Your task to perform on an android device: Open Google Maps Image 0: 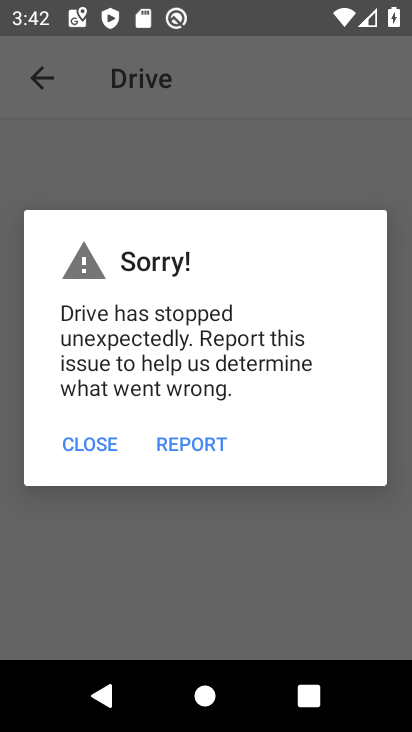
Step 0: press back button
Your task to perform on an android device: Open Google Maps Image 1: 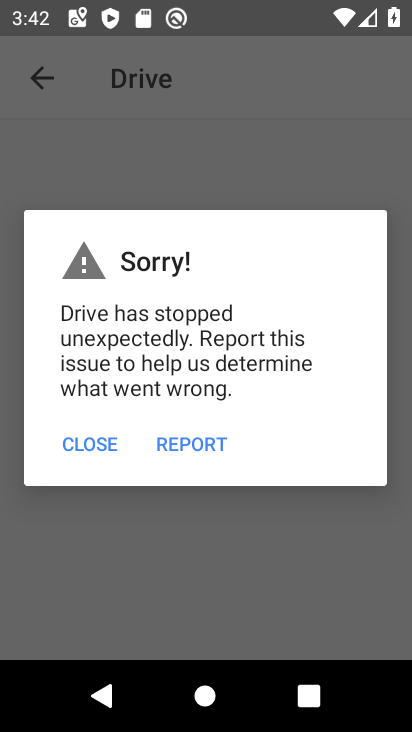
Step 1: press home button
Your task to perform on an android device: Open Google Maps Image 2: 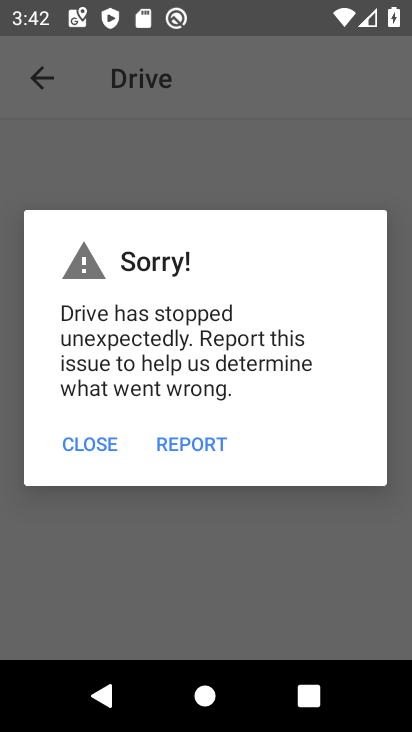
Step 2: drag from (81, 588) to (210, 83)
Your task to perform on an android device: Open Google Maps Image 3: 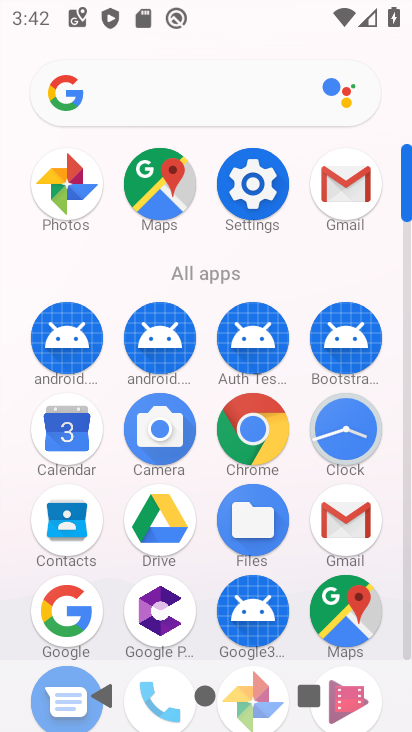
Step 3: click (163, 103)
Your task to perform on an android device: Open Google Maps Image 4: 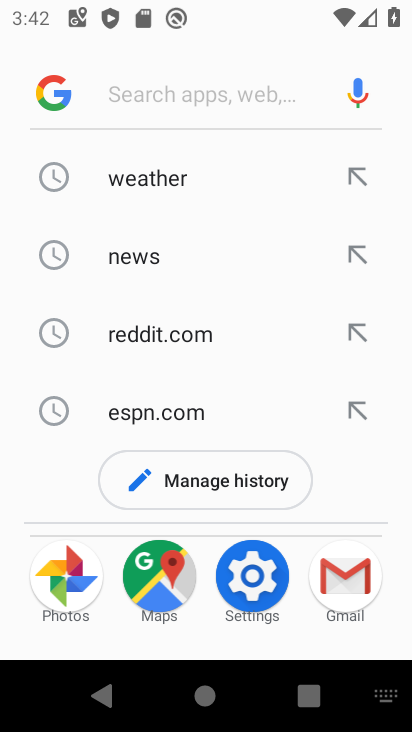
Step 4: press back button
Your task to perform on an android device: Open Google Maps Image 5: 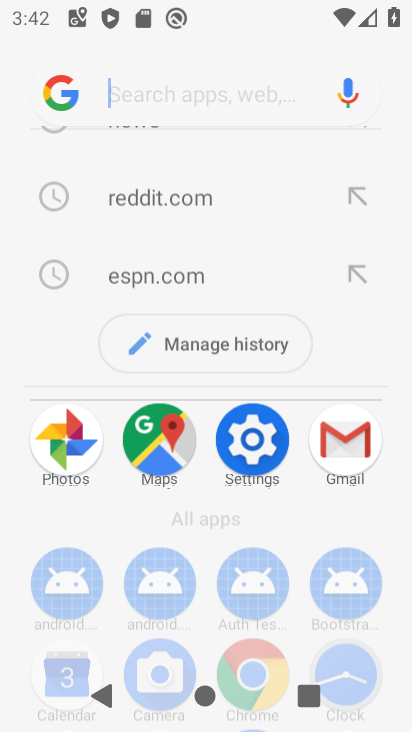
Step 5: press back button
Your task to perform on an android device: Open Google Maps Image 6: 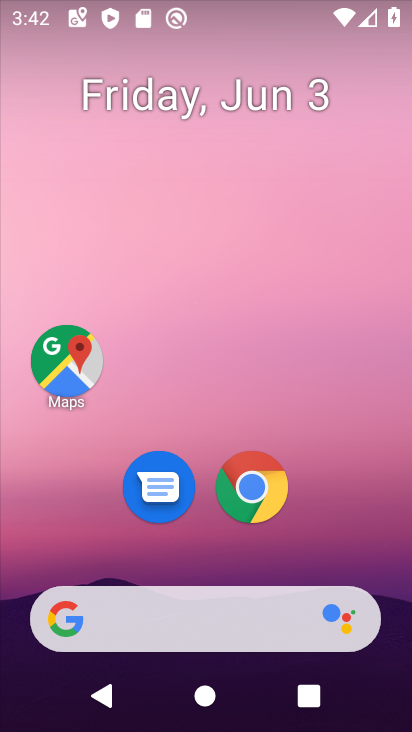
Step 6: drag from (196, 575) to (273, 76)
Your task to perform on an android device: Open Google Maps Image 7: 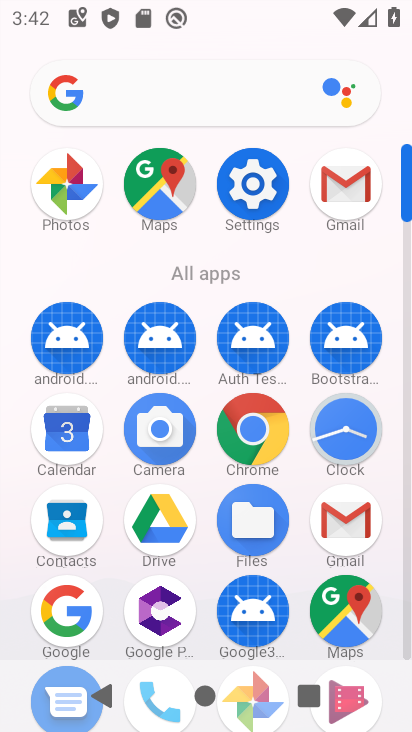
Step 7: click (334, 619)
Your task to perform on an android device: Open Google Maps Image 8: 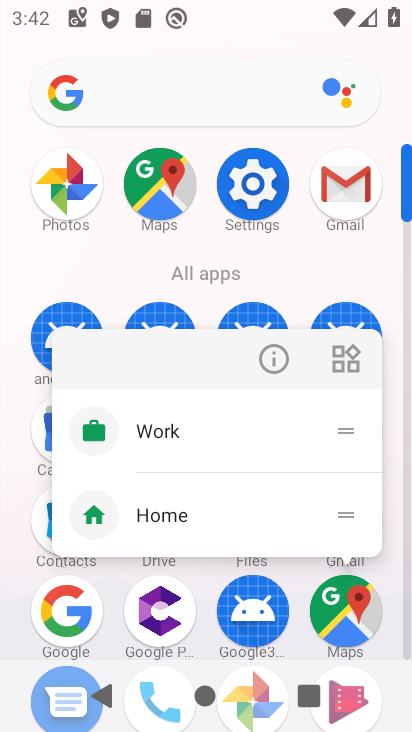
Step 8: click (268, 357)
Your task to perform on an android device: Open Google Maps Image 9: 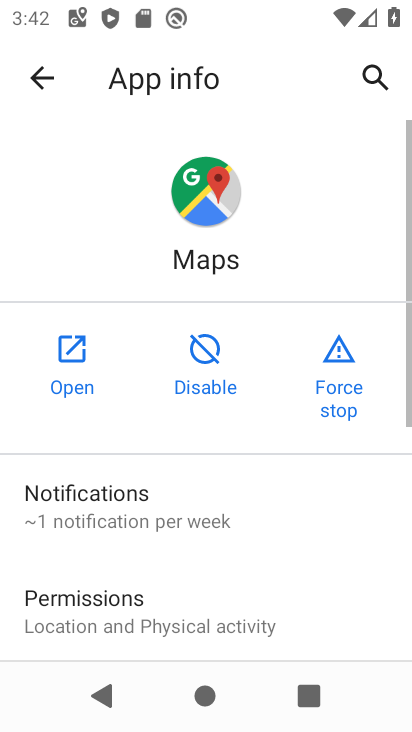
Step 9: click (84, 334)
Your task to perform on an android device: Open Google Maps Image 10: 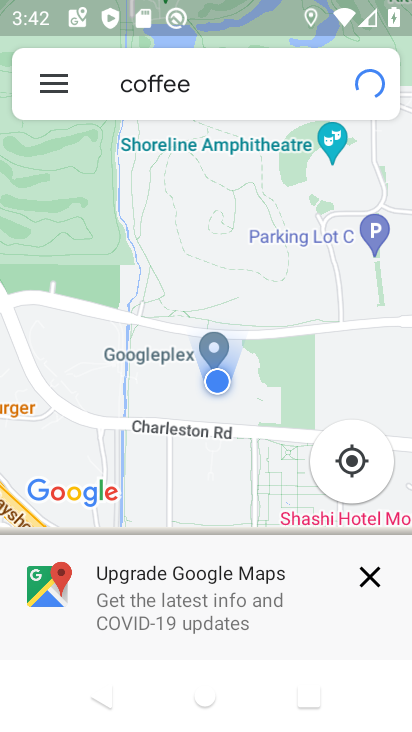
Step 10: click (162, 88)
Your task to perform on an android device: Open Google Maps Image 11: 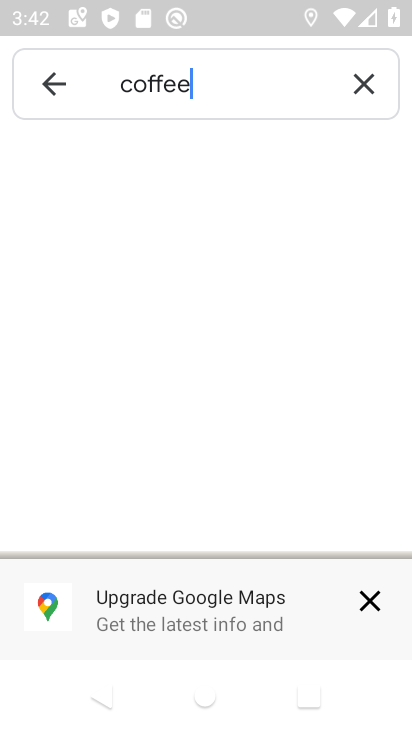
Step 11: click (170, 88)
Your task to perform on an android device: Open Google Maps Image 12: 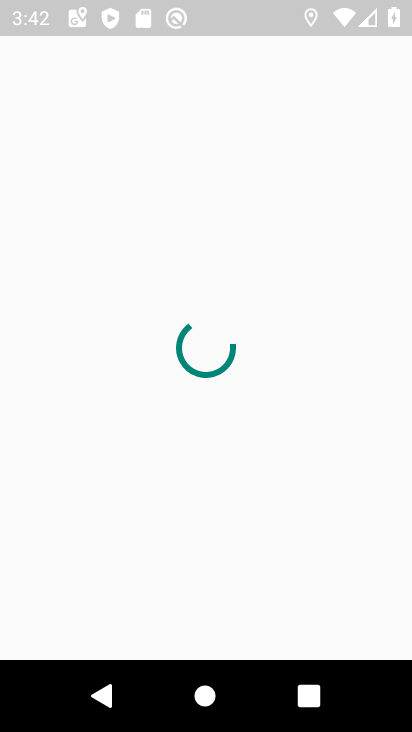
Step 12: click (365, 89)
Your task to perform on an android device: Open Google Maps Image 13: 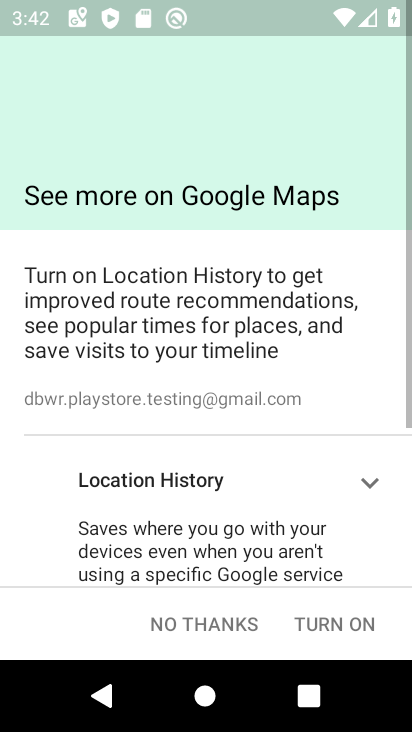
Step 13: drag from (221, 431) to (259, 151)
Your task to perform on an android device: Open Google Maps Image 14: 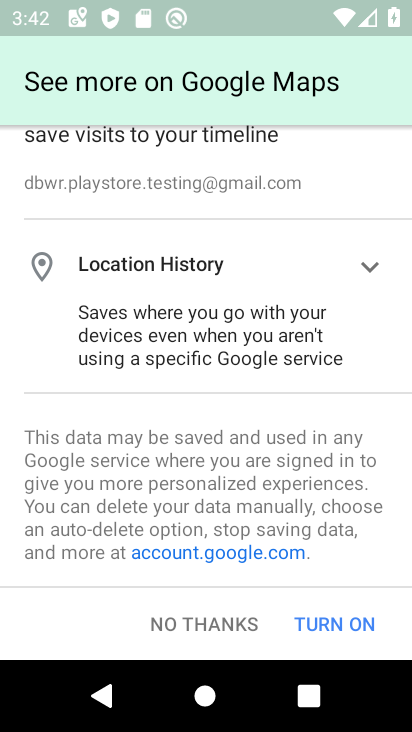
Step 14: click (203, 628)
Your task to perform on an android device: Open Google Maps Image 15: 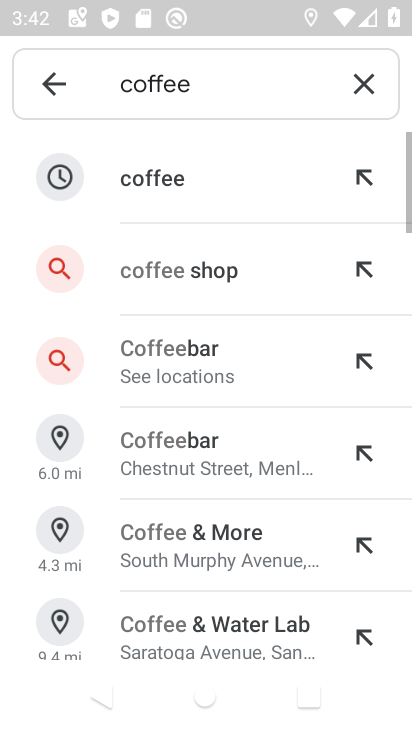
Step 15: task complete